Your task to perform on an android device: Do I have any events this weekend? Image 0: 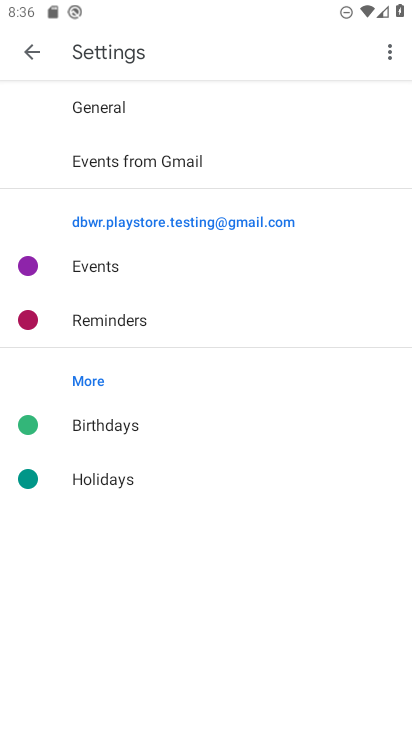
Step 0: press home button
Your task to perform on an android device: Do I have any events this weekend? Image 1: 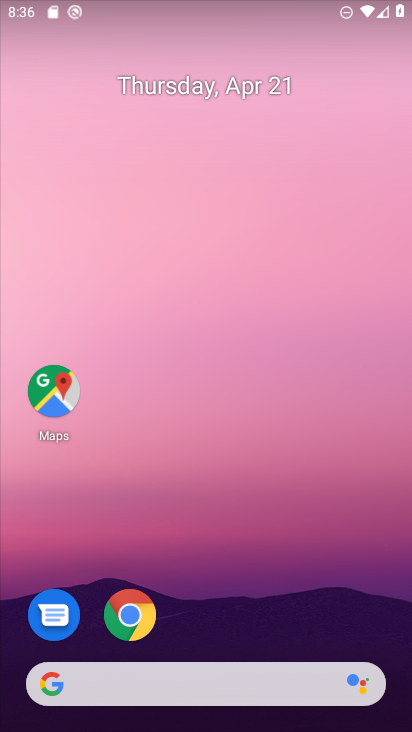
Step 1: drag from (321, 591) to (301, 48)
Your task to perform on an android device: Do I have any events this weekend? Image 2: 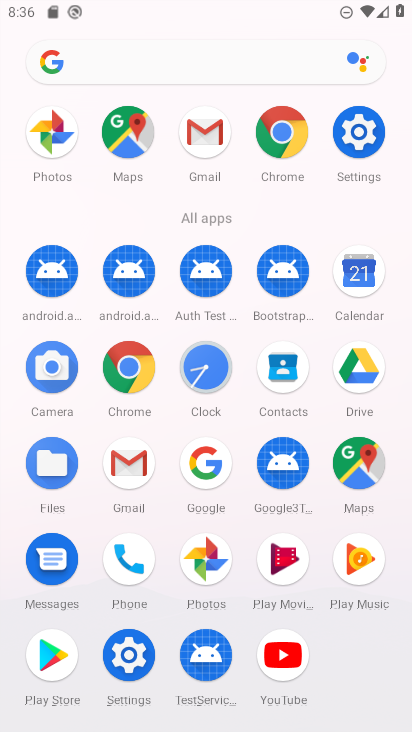
Step 2: click (358, 267)
Your task to perform on an android device: Do I have any events this weekend? Image 3: 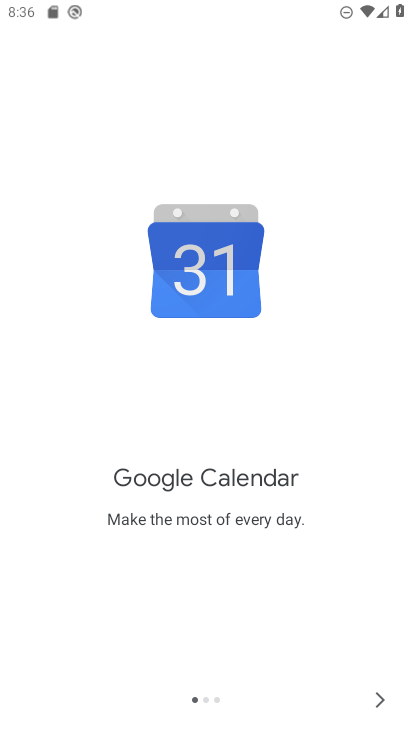
Step 3: click (367, 698)
Your task to perform on an android device: Do I have any events this weekend? Image 4: 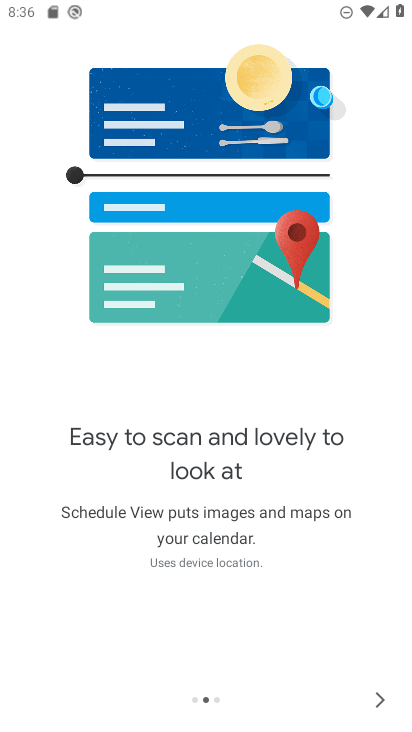
Step 4: click (367, 697)
Your task to perform on an android device: Do I have any events this weekend? Image 5: 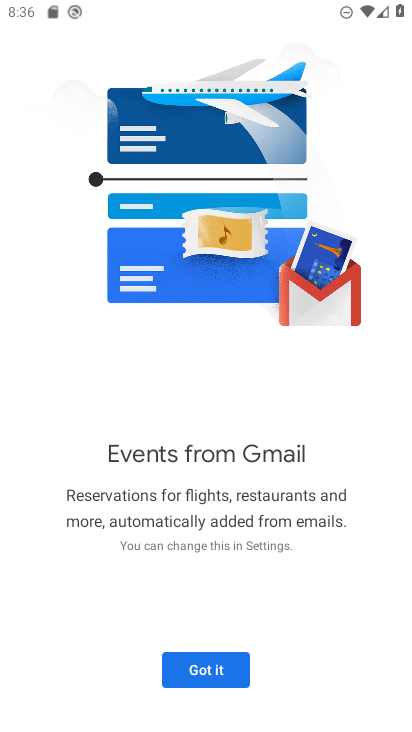
Step 5: click (231, 669)
Your task to perform on an android device: Do I have any events this weekend? Image 6: 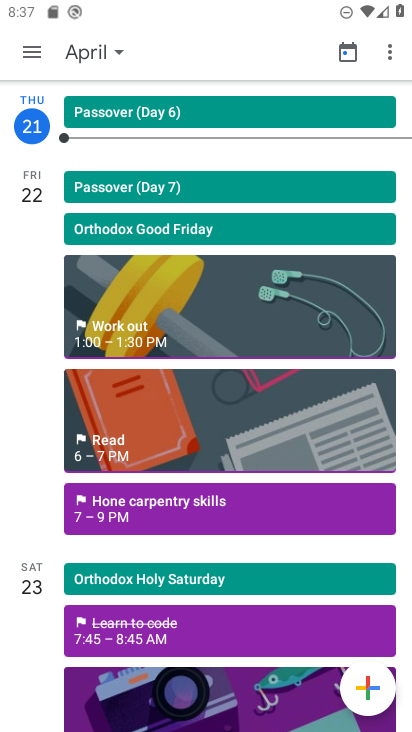
Step 6: click (100, 46)
Your task to perform on an android device: Do I have any events this weekend? Image 7: 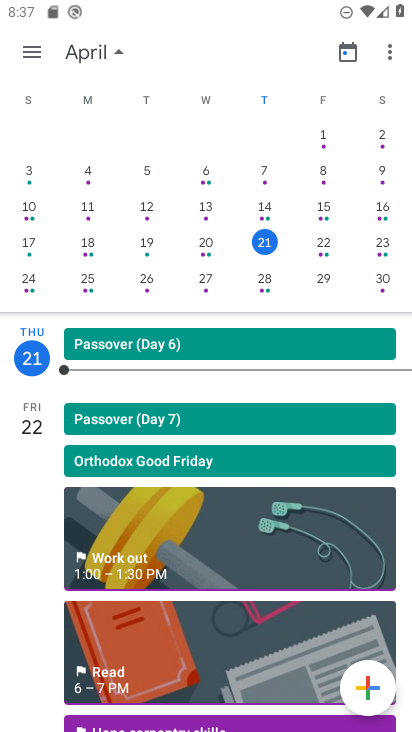
Step 7: click (325, 249)
Your task to perform on an android device: Do I have any events this weekend? Image 8: 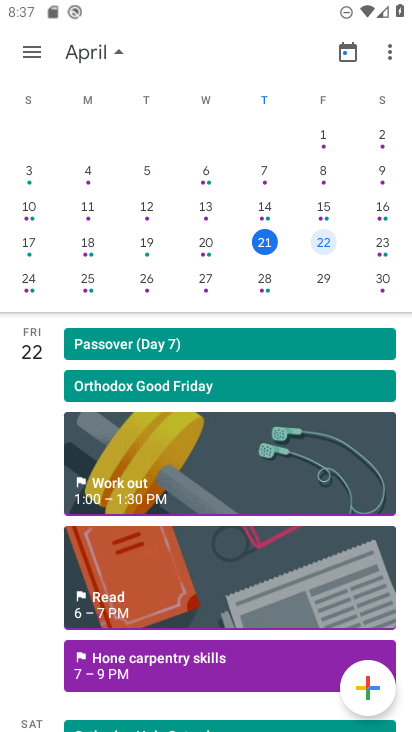
Step 8: task complete